Your task to perform on an android device: turn off priority inbox in the gmail app Image 0: 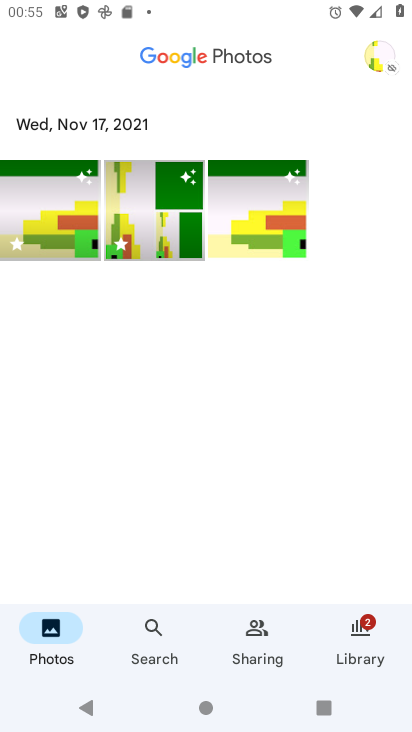
Step 0: press home button
Your task to perform on an android device: turn off priority inbox in the gmail app Image 1: 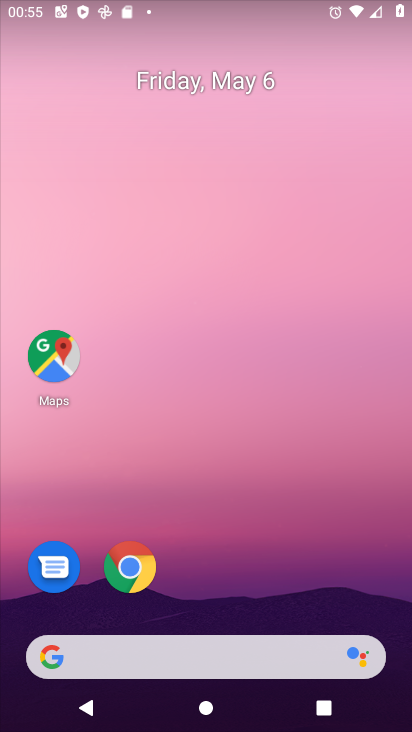
Step 1: drag from (220, 584) to (164, 130)
Your task to perform on an android device: turn off priority inbox in the gmail app Image 2: 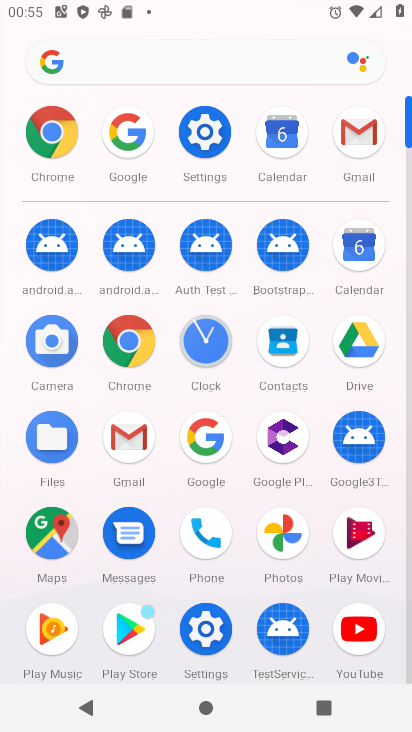
Step 2: click (372, 159)
Your task to perform on an android device: turn off priority inbox in the gmail app Image 3: 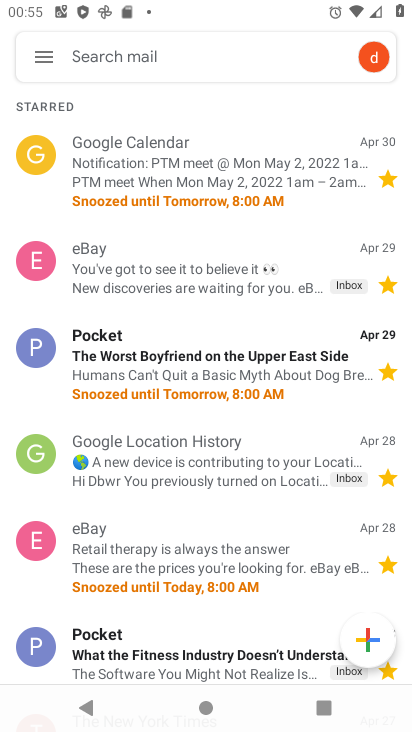
Step 3: click (42, 49)
Your task to perform on an android device: turn off priority inbox in the gmail app Image 4: 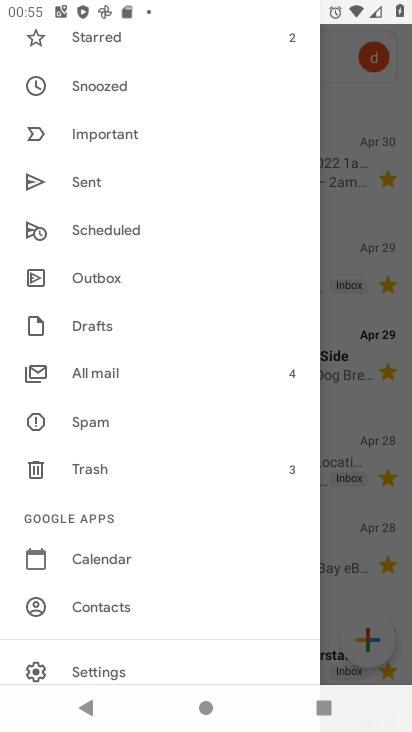
Step 4: click (127, 657)
Your task to perform on an android device: turn off priority inbox in the gmail app Image 5: 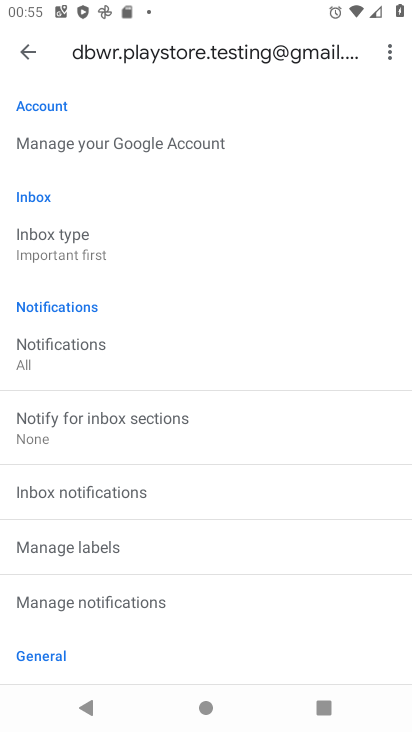
Step 5: click (93, 257)
Your task to perform on an android device: turn off priority inbox in the gmail app Image 6: 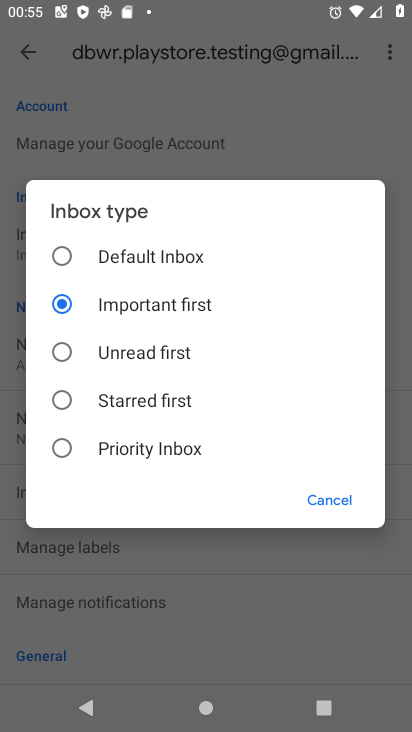
Step 6: task complete